Your task to perform on an android device: turn on the 24-hour format for clock Image 0: 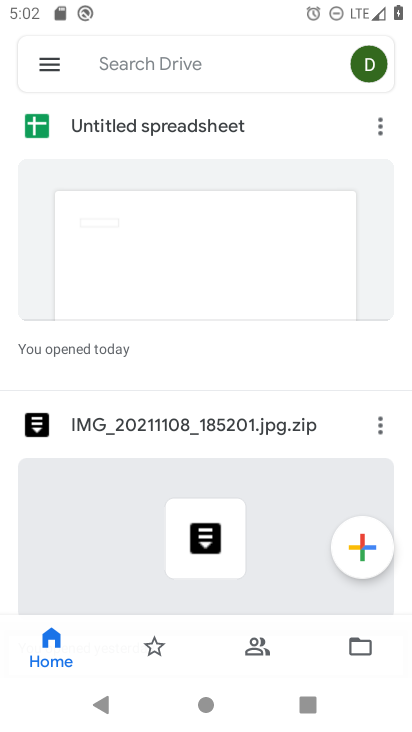
Step 0: press home button
Your task to perform on an android device: turn on the 24-hour format for clock Image 1: 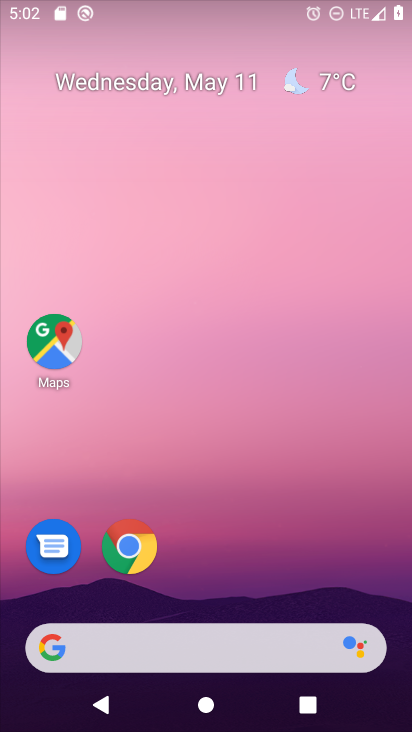
Step 1: drag from (269, 635) to (289, 32)
Your task to perform on an android device: turn on the 24-hour format for clock Image 2: 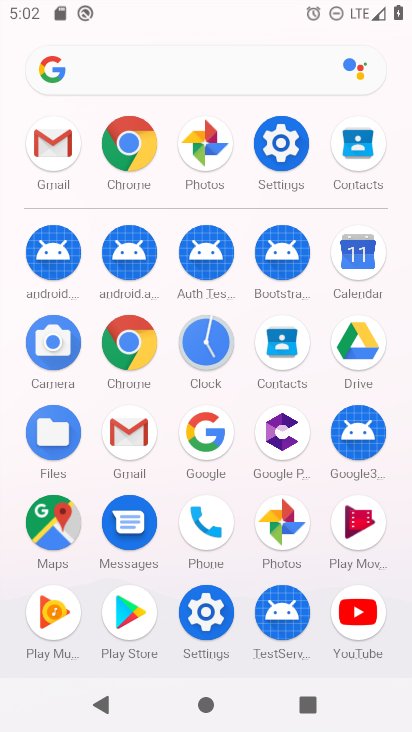
Step 2: click (208, 348)
Your task to perform on an android device: turn on the 24-hour format for clock Image 3: 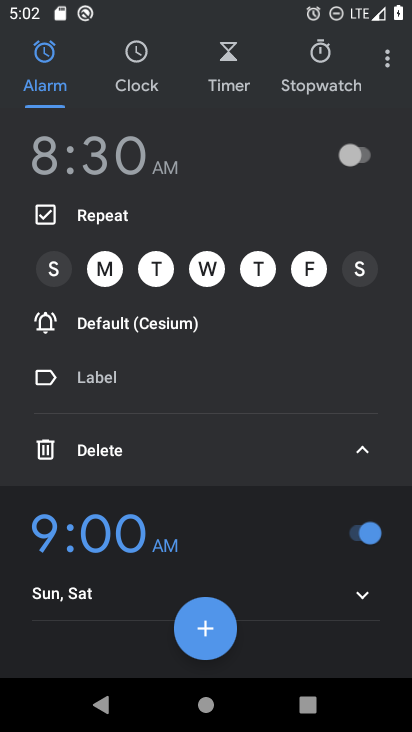
Step 3: click (388, 54)
Your task to perform on an android device: turn on the 24-hour format for clock Image 4: 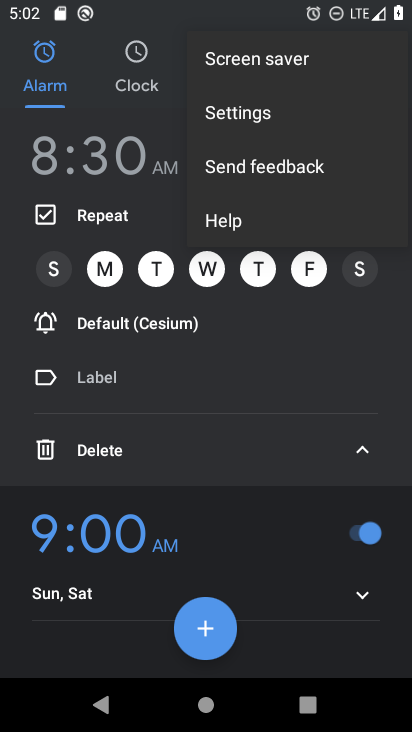
Step 4: click (261, 117)
Your task to perform on an android device: turn on the 24-hour format for clock Image 5: 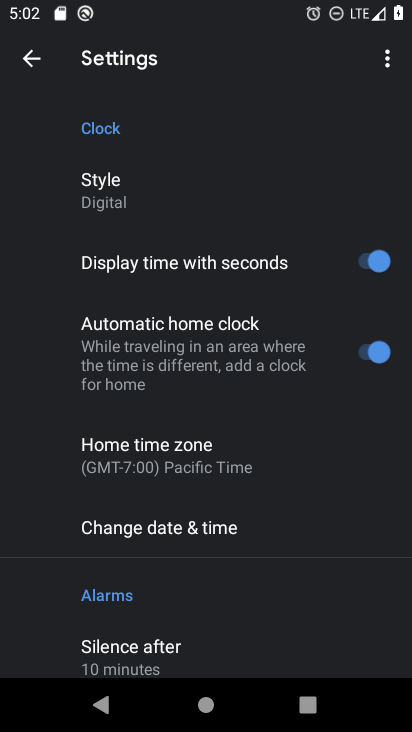
Step 5: click (219, 539)
Your task to perform on an android device: turn on the 24-hour format for clock Image 6: 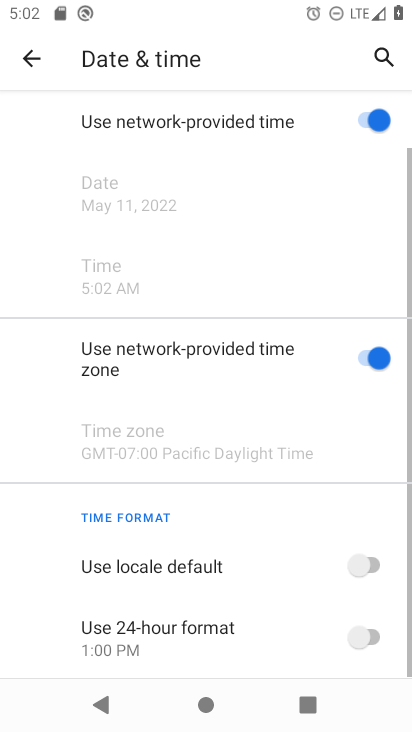
Step 6: drag from (302, 683) to (320, 349)
Your task to perform on an android device: turn on the 24-hour format for clock Image 7: 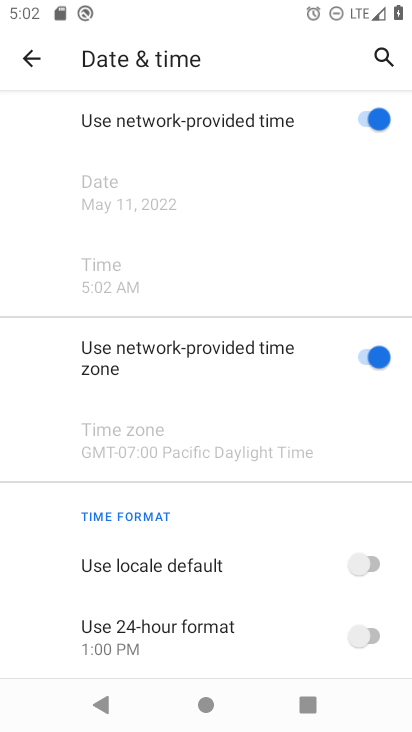
Step 7: click (370, 633)
Your task to perform on an android device: turn on the 24-hour format for clock Image 8: 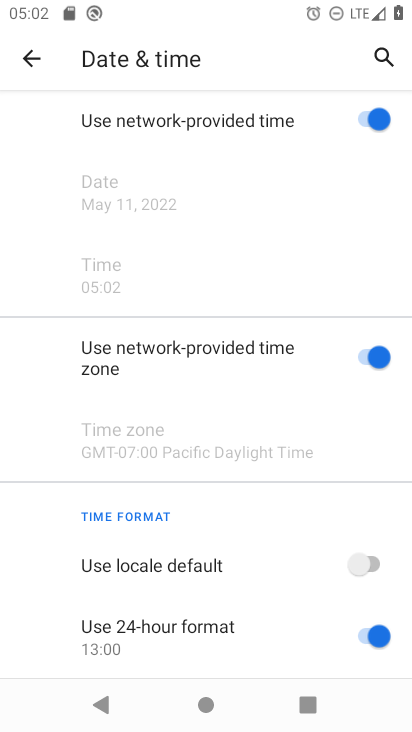
Step 8: task complete